Your task to perform on an android device: Open Google Chrome Image 0: 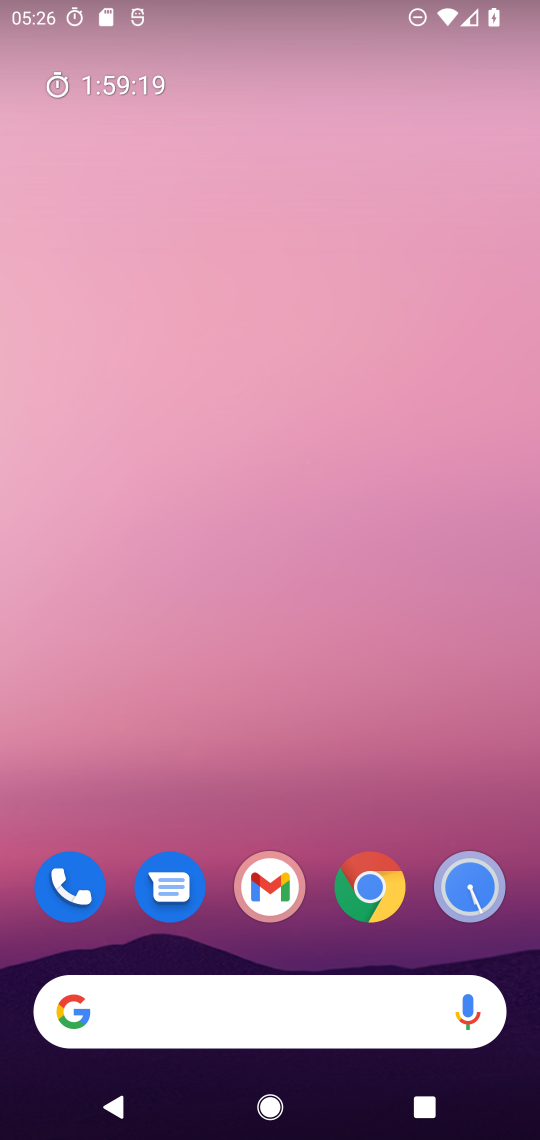
Step 0: drag from (308, 800) to (376, 231)
Your task to perform on an android device: Open Google Chrome Image 1: 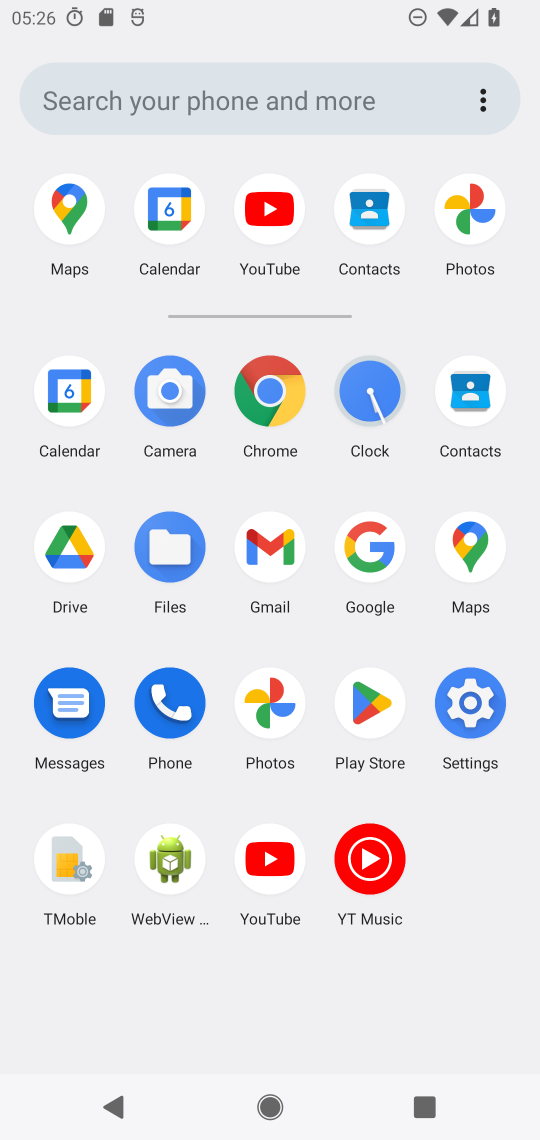
Step 1: click (271, 391)
Your task to perform on an android device: Open Google Chrome Image 2: 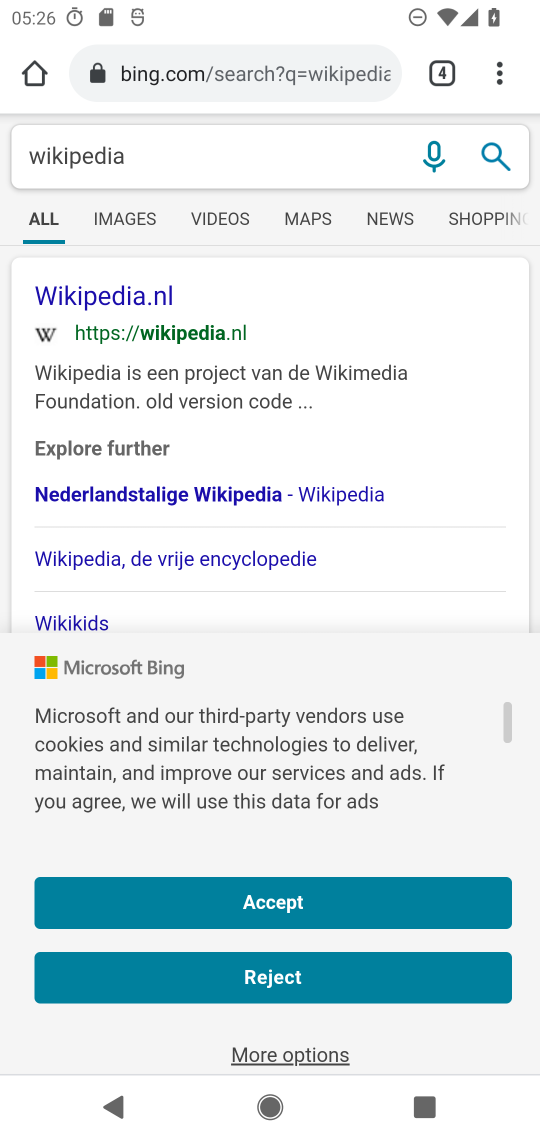
Step 2: task complete